Your task to perform on an android device: Clear all items from cart on amazon. Add "usb-a" to the cart on amazon Image 0: 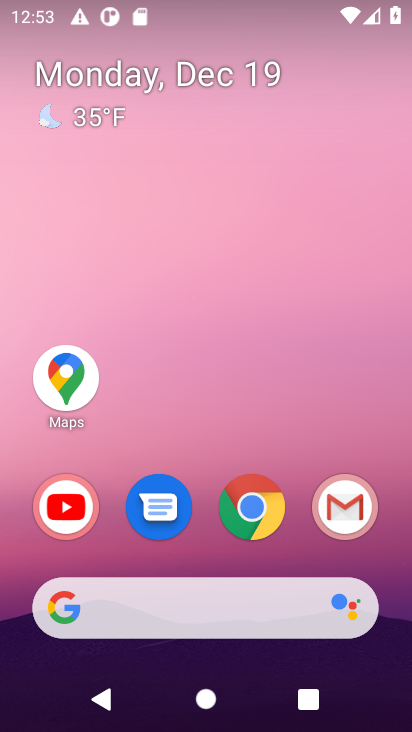
Step 0: click (254, 504)
Your task to perform on an android device: Clear all items from cart on amazon. Add "usb-a" to the cart on amazon Image 1: 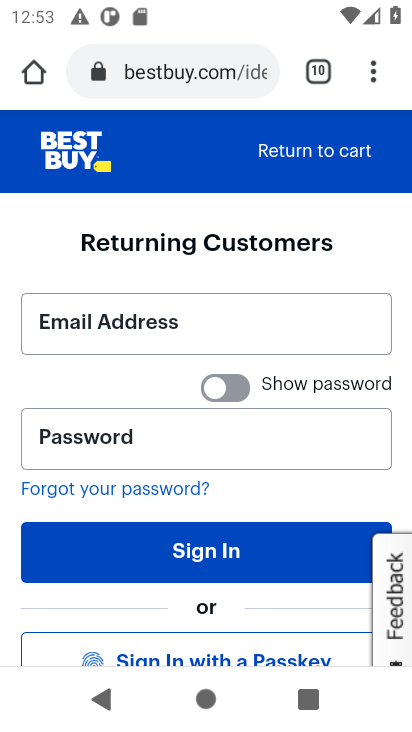
Step 1: click (181, 76)
Your task to perform on an android device: Clear all items from cart on amazon. Add "usb-a" to the cart on amazon Image 2: 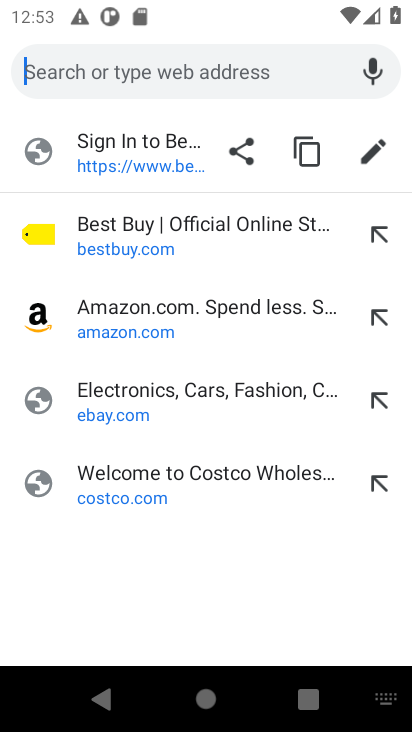
Step 2: click (101, 332)
Your task to perform on an android device: Clear all items from cart on amazon. Add "usb-a" to the cart on amazon Image 3: 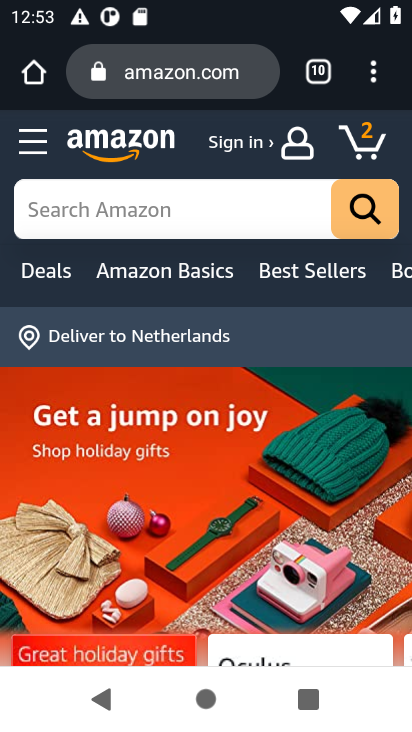
Step 3: click (365, 147)
Your task to perform on an android device: Clear all items from cart on amazon. Add "usb-a" to the cart on amazon Image 4: 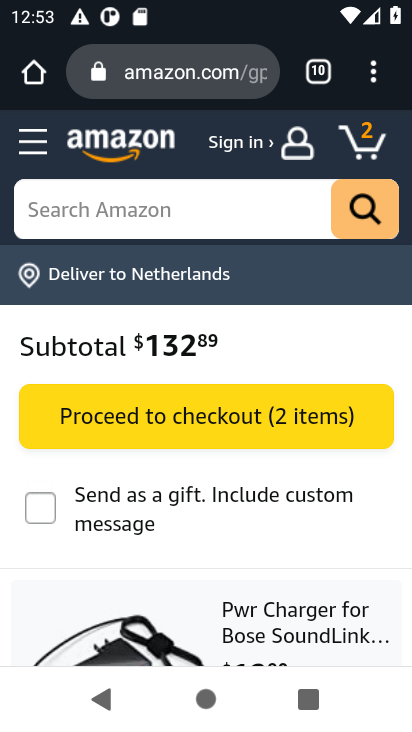
Step 4: drag from (84, 452) to (129, 190)
Your task to perform on an android device: Clear all items from cart on amazon. Add "usb-a" to the cart on amazon Image 5: 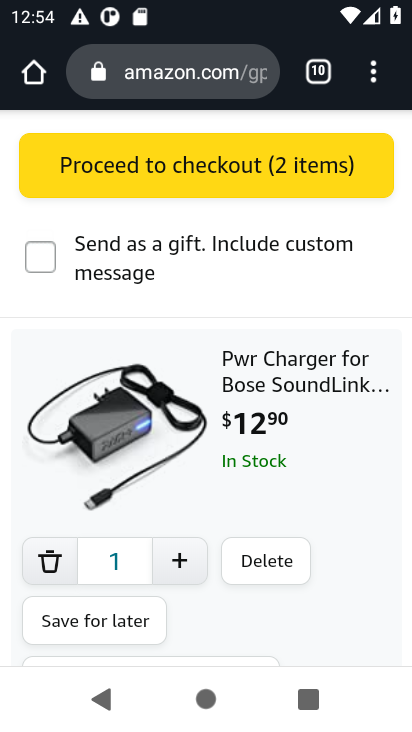
Step 5: click (264, 577)
Your task to perform on an android device: Clear all items from cart on amazon. Add "usb-a" to the cart on amazon Image 6: 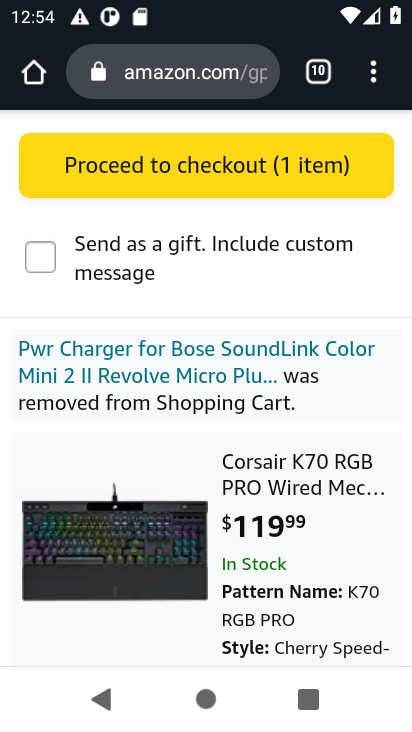
Step 6: drag from (264, 576) to (256, 308)
Your task to perform on an android device: Clear all items from cart on amazon. Add "usb-a" to the cart on amazon Image 7: 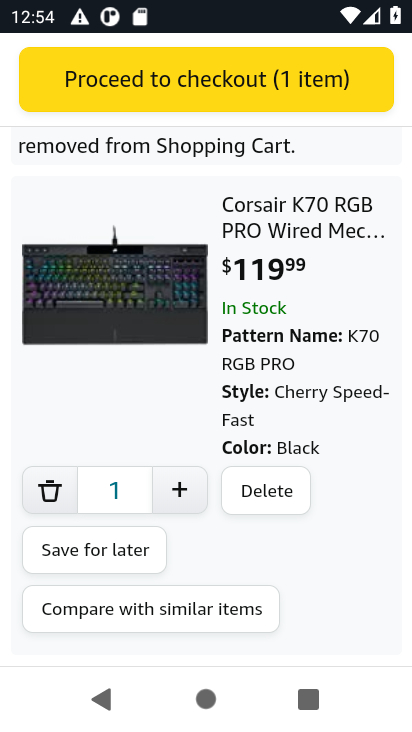
Step 7: click (260, 496)
Your task to perform on an android device: Clear all items from cart on amazon. Add "usb-a" to the cart on amazon Image 8: 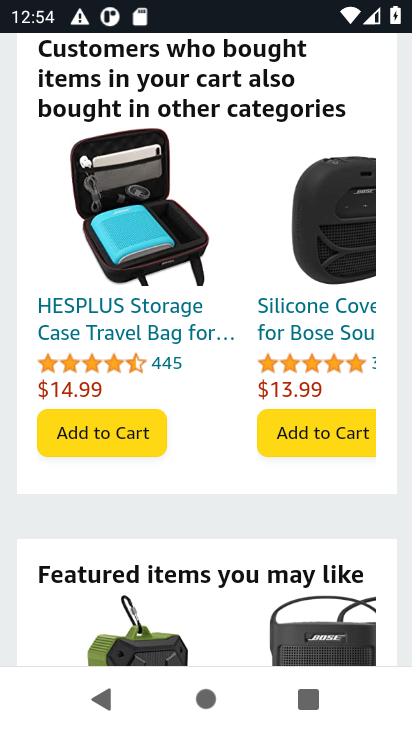
Step 8: drag from (246, 331) to (125, 687)
Your task to perform on an android device: Clear all items from cart on amazon. Add "usb-a" to the cart on amazon Image 9: 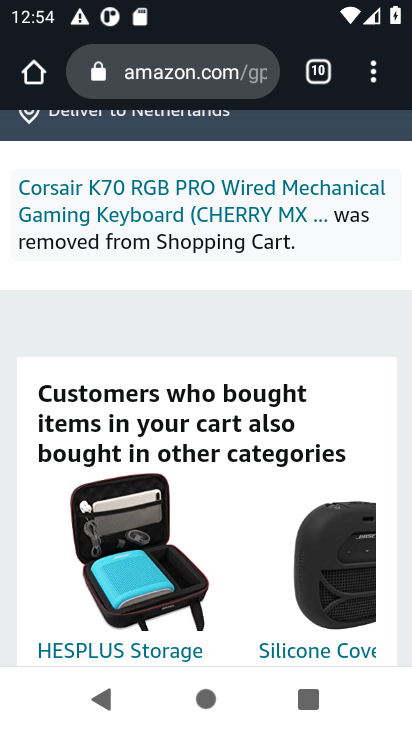
Step 9: drag from (241, 318) to (206, 538)
Your task to perform on an android device: Clear all items from cart on amazon. Add "usb-a" to the cart on amazon Image 10: 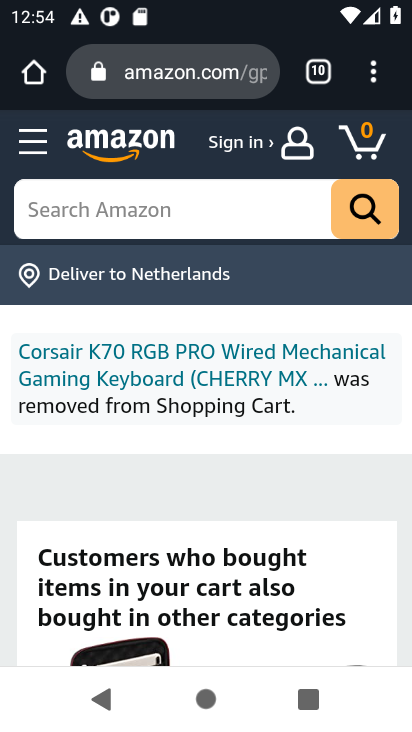
Step 10: click (134, 224)
Your task to perform on an android device: Clear all items from cart on amazon. Add "usb-a" to the cart on amazon Image 11: 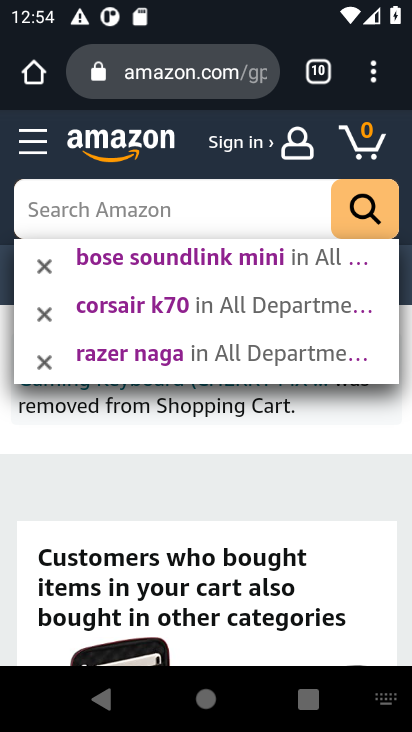
Step 11: type "usb-a"
Your task to perform on an android device: Clear all items from cart on amazon. Add "usb-a" to the cart on amazon Image 12: 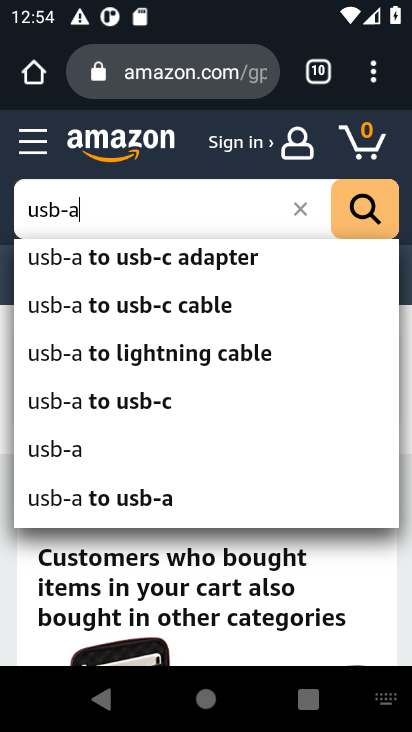
Step 12: click (64, 448)
Your task to perform on an android device: Clear all items from cart on amazon. Add "usb-a" to the cart on amazon Image 13: 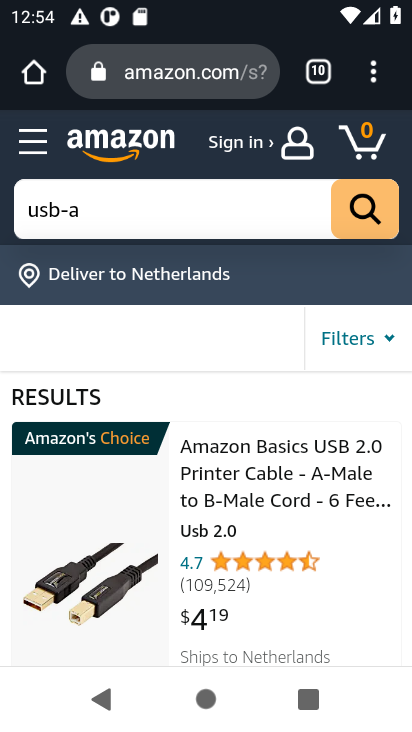
Step 13: drag from (138, 584) to (130, 414)
Your task to perform on an android device: Clear all items from cart on amazon. Add "usb-a" to the cart on amazon Image 14: 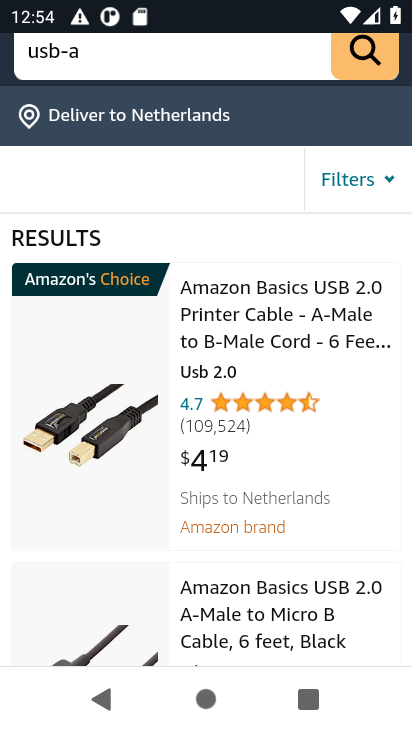
Step 14: drag from (127, 434) to (120, 291)
Your task to perform on an android device: Clear all items from cart on amazon. Add "usb-a" to the cart on amazon Image 15: 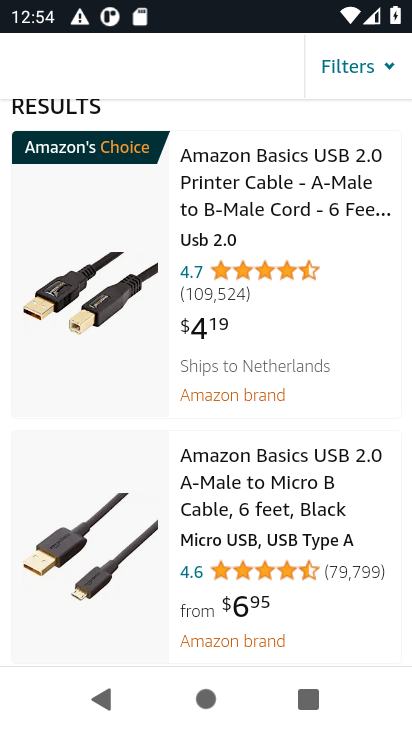
Step 15: drag from (220, 518) to (215, 238)
Your task to perform on an android device: Clear all items from cart on amazon. Add "usb-a" to the cart on amazon Image 16: 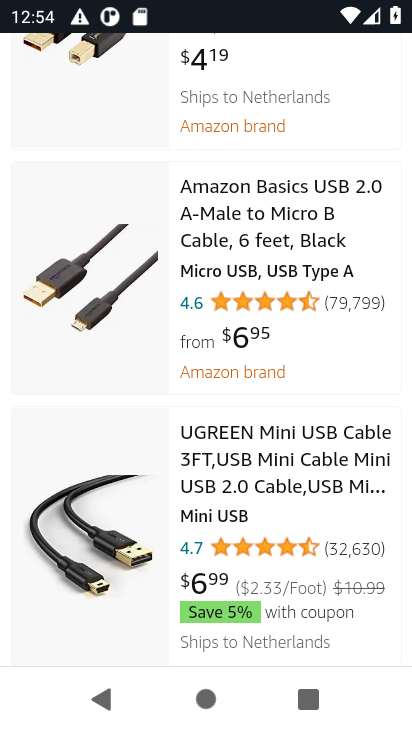
Step 16: drag from (190, 471) to (187, 306)
Your task to perform on an android device: Clear all items from cart on amazon. Add "usb-a" to the cart on amazon Image 17: 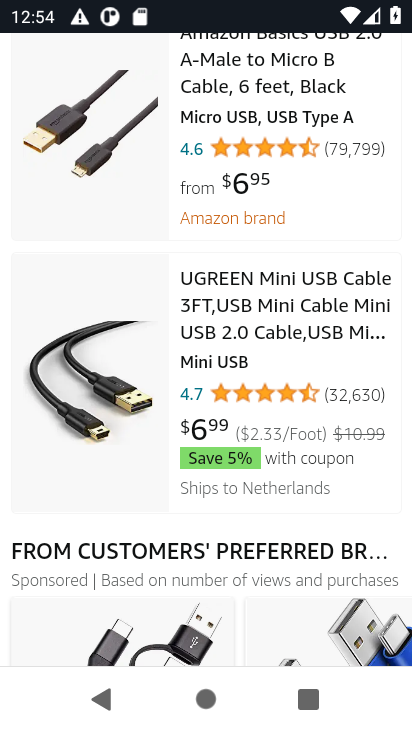
Step 17: drag from (179, 369) to (188, 174)
Your task to perform on an android device: Clear all items from cart on amazon. Add "usb-a" to the cart on amazon Image 18: 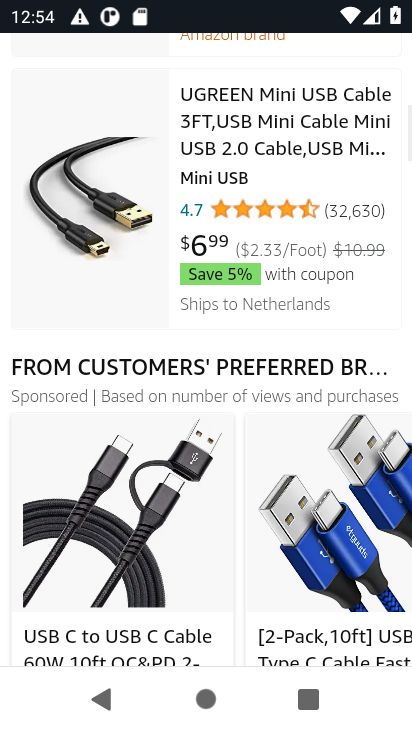
Step 18: drag from (177, 488) to (167, 199)
Your task to perform on an android device: Clear all items from cart on amazon. Add "usb-a" to the cart on amazon Image 19: 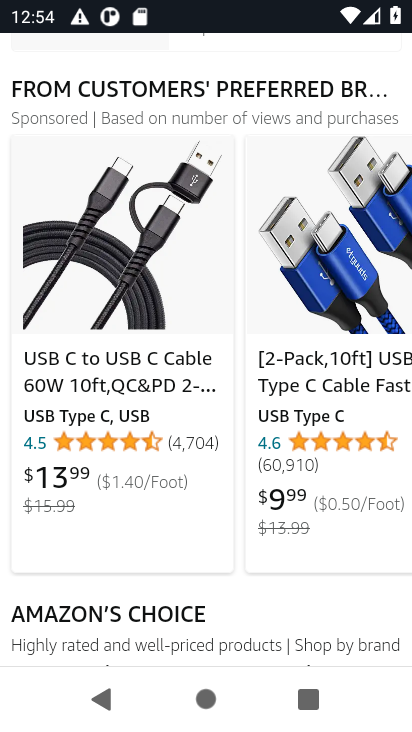
Step 19: drag from (119, 451) to (115, 186)
Your task to perform on an android device: Clear all items from cart on amazon. Add "usb-a" to the cart on amazon Image 20: 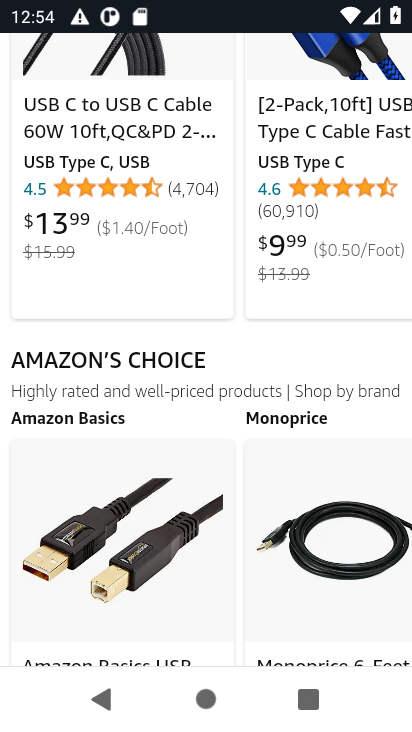
Step 20: drag from (121, 480) to (120, 160)
Your task to perform on an android device: Clear all items from cart on amazon. Add "usb-a" to the cart on amazon Image 21: 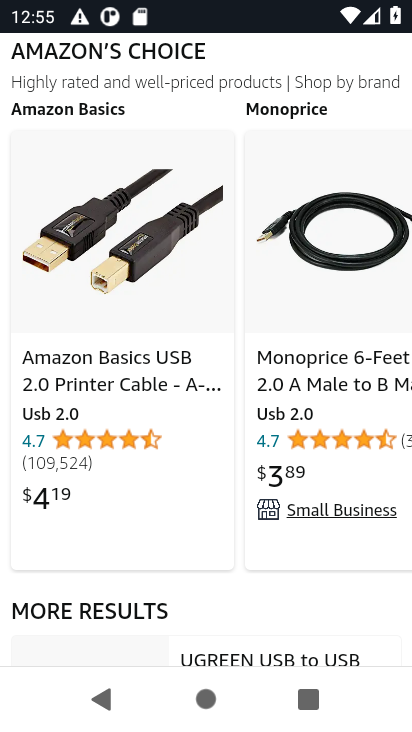
Step 21: drag from (108, 404) to (102, 183)
Your task to perform on an android device: Clear all items from cart on amazon. Add "usb-a" to the cart on amazon Image 22: 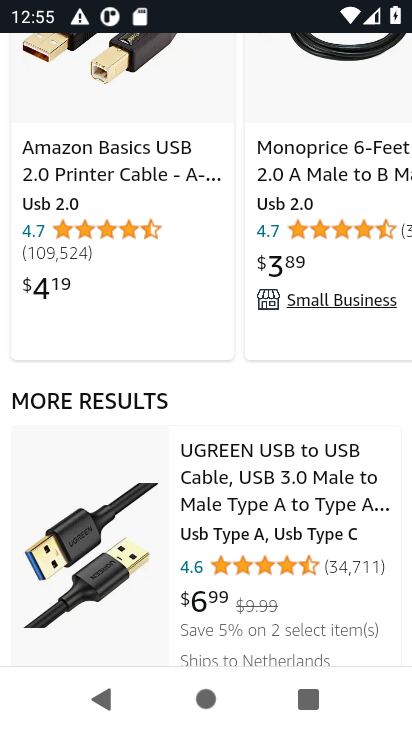
Step 22: drag from (73, 480) to (78, 303)
Your task to perform on an android device: Clear all items from cart on amazon. Add "usb-a" to the cart on amazon Image 23: 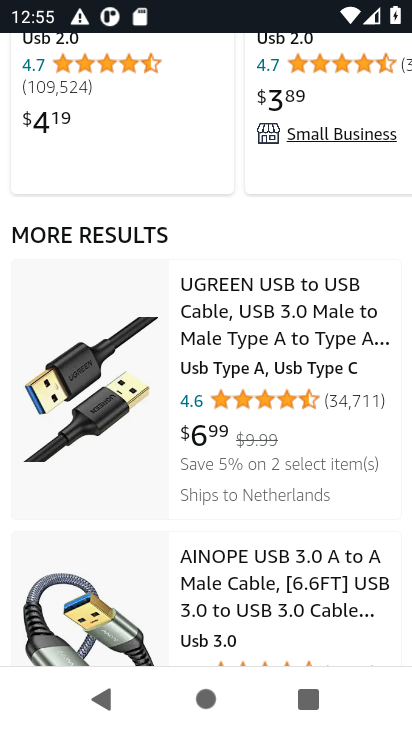
Step 23: click (230, 351)
Your task to perform on an android device: Clear all items from cart on amazon. Add "usb-a" to the cart on amazon Image 24: 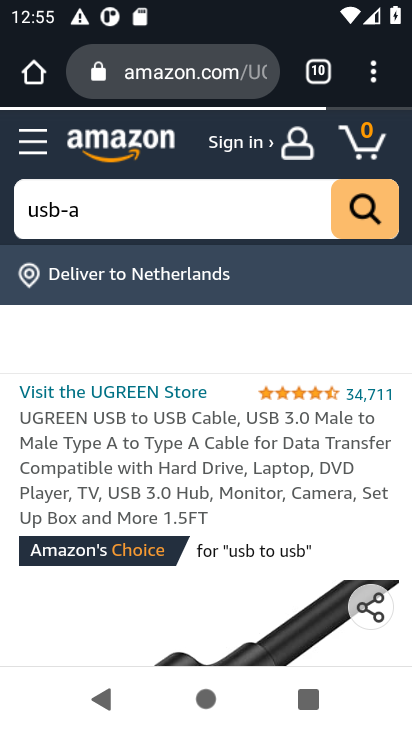
Step 24: drag from (200, 511) to (200, 182)
Your task to perform on an android device: Clear all items from cart on amazon. Add "usb-a" to the cart on amazon Image 25: 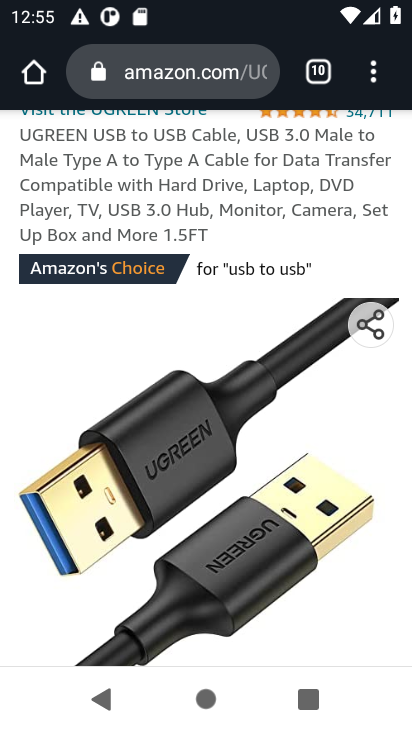
Step 25: drag from (136, 481) to (140, 105)
Your task to perform on an android device: Clear all items from cart on amazon. Add "usb-a" to the cart on amazon Image 26: 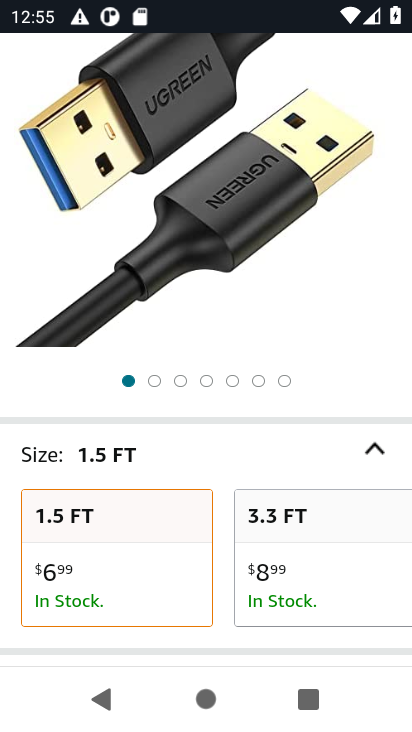
Step 26: drag from (129, 201) to (127, 130)
Your task to perform on an android device: Clear all items from cart on amazon. Add "usb-a" to the cart on amazon Image 27: 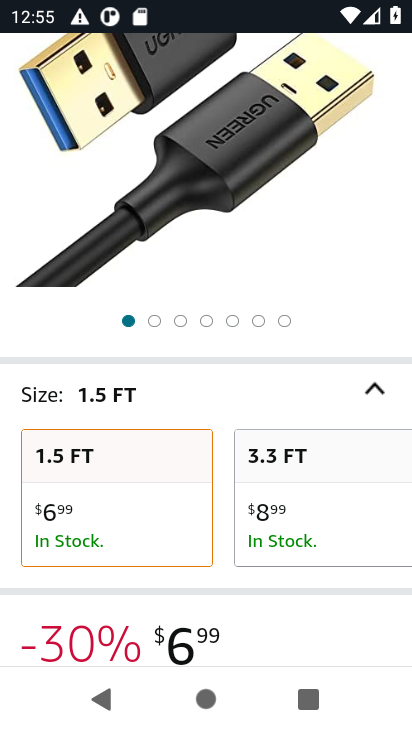
Step 27: drag from (91, 442) to (91, 141)
Your task to perform on an android device: Clear all items from cart on amazon. Add "usb-a" to the cart on amazon Image 28: 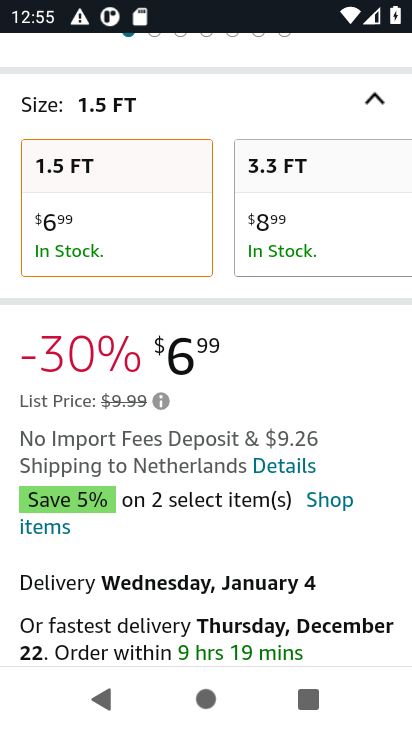
Step 28: drag from (161, 432) to (179, 168)
Your task to perform on an android device: Clear all items from cart on amazon. Add "usb-a" to the cart on amazon Image 29: 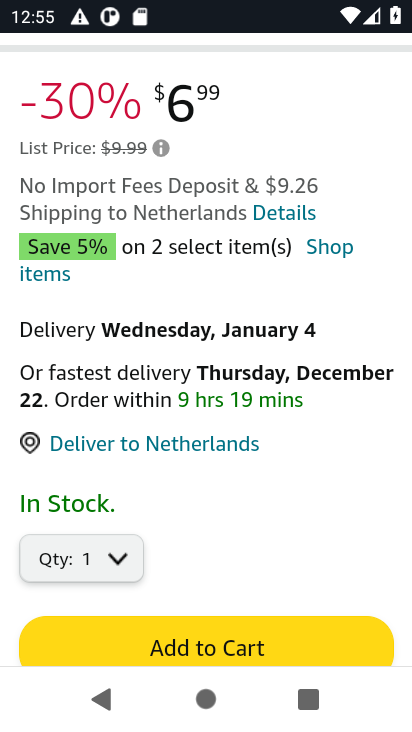
Step 29: drag from (223, 484) to (213, 214)
Your task to perform on an android device: Clear all items from cart on amazon. Add "usb-a" to the cart on amazon Image 30: 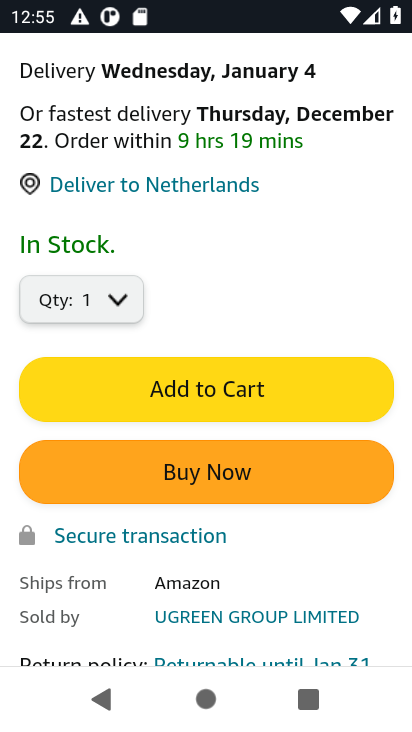
Step 30: click (185, 388)
Your task to perform on an android device: Clear all items from cart on amazon. Add "usb-a" to the cart on amazon Image 31: 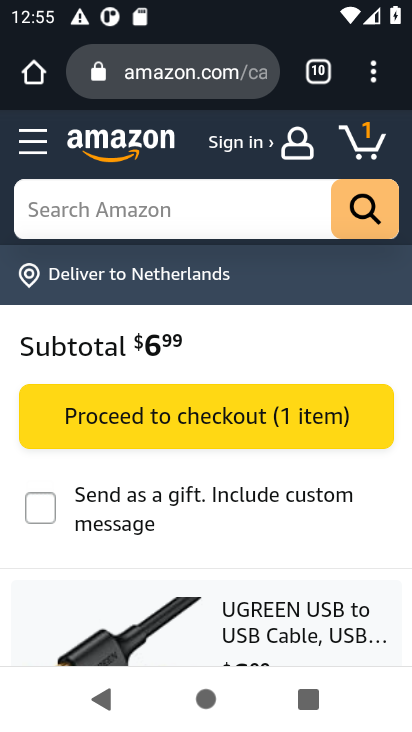
Step 31: task complete